Your task to perform on an android device: Go to CNN.com Image 0: 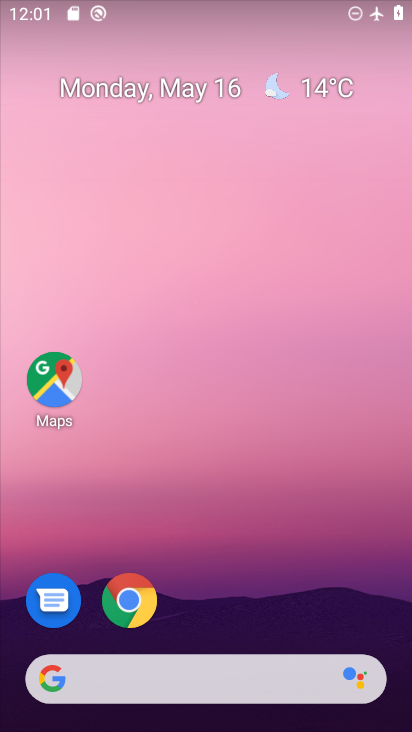
Step 0: click (129, 601)
Your task to perform on an android device: Go to CNN.com Image 1: 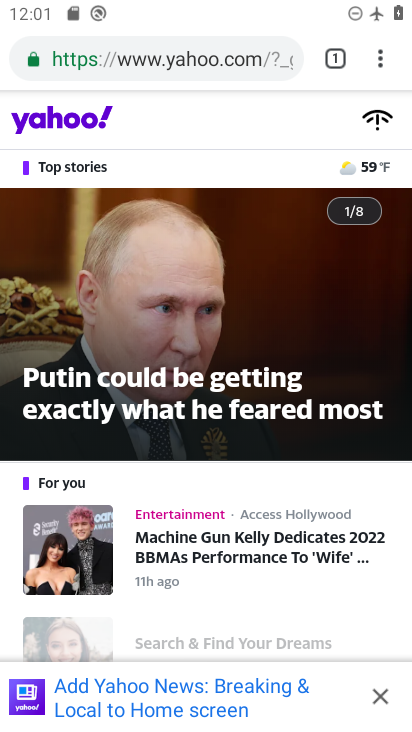
Step 1: click (234, 48)
Your task to perform on an android device: Go to CNN.com Image 2: 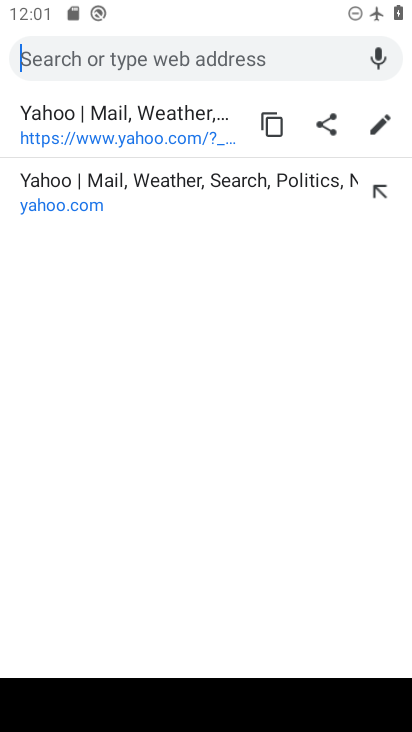
Step 2: type "cnn.com"
Your task to perform on an android device: Go to CNN.com Image 3: 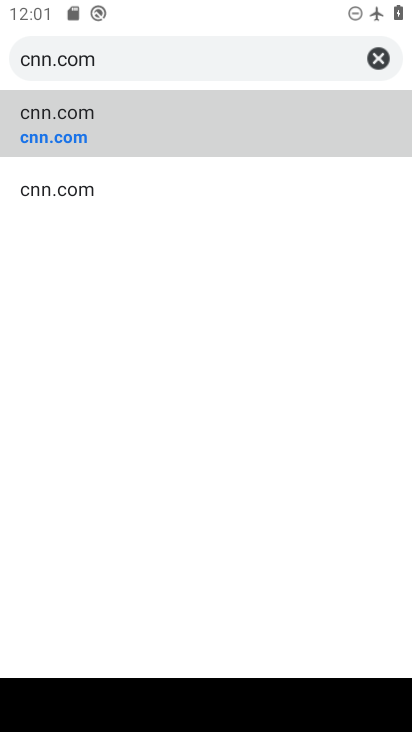
Step 3: click (49, 135)
Your task to perform on an android device: Go to CNN.com Image 4: 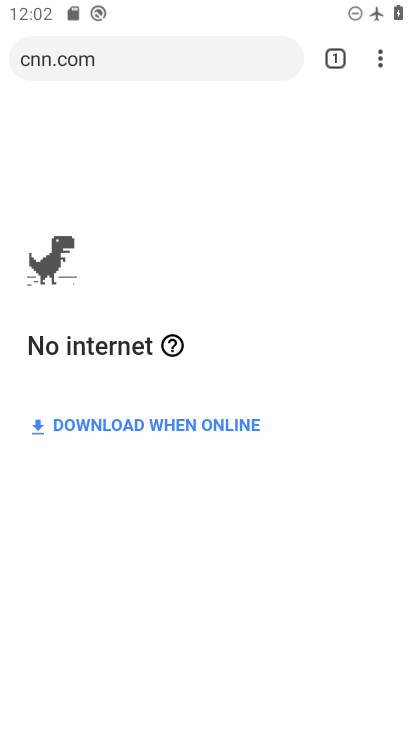
Step 4: task complete